Your task to perform on an android device: Show me recent news Image 0: 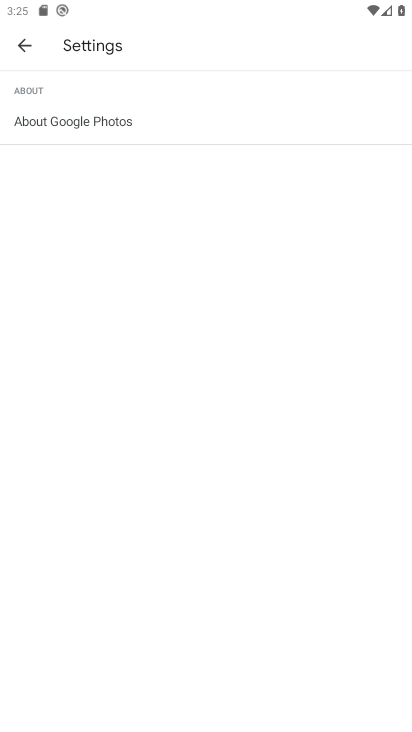
Step 0: press home button
Your task to perform on an android device: Show me recent news Image 1: 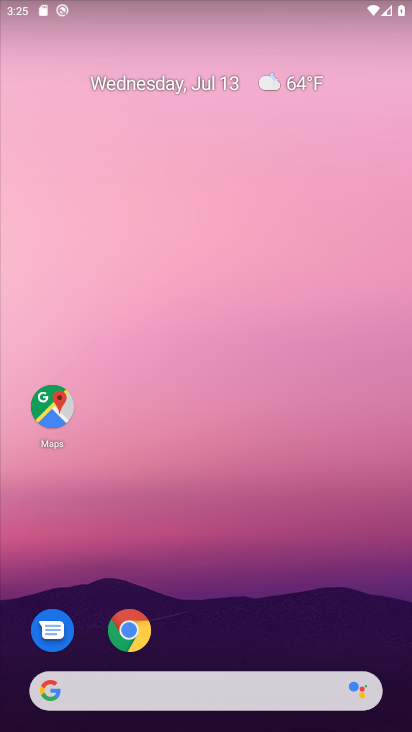
Step 1: click (110, 681)
Your task to perform on an android device: Show me recent news Image 2: 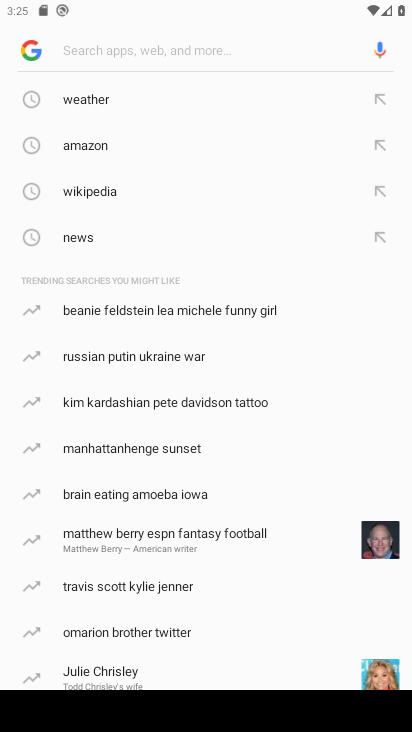
Step 2: click (31, 44)
Your task to perform on an android device: Show me recent news Image 3: 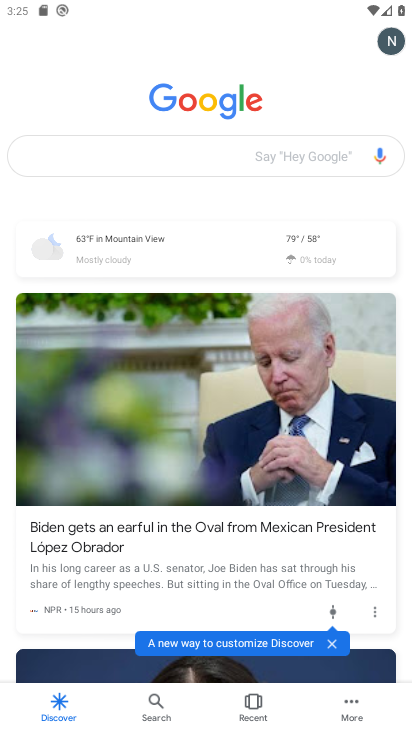
Step 3: task complete